Your task to perform on an android device: Go to internet settings Image 0: 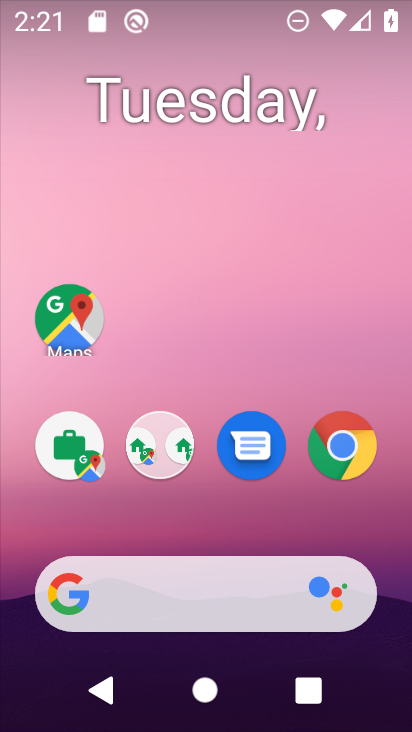
Step 0: drag from (266, 474) to (261, 136)
Your task to perform on an android device: Go to internet settings Image 1: 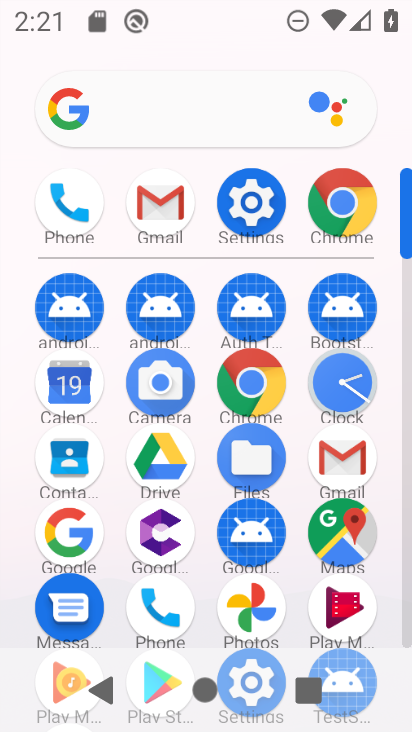
Step 1: click (253, 222)
Your task to perform on an android device: Go to internet settings Image 2: 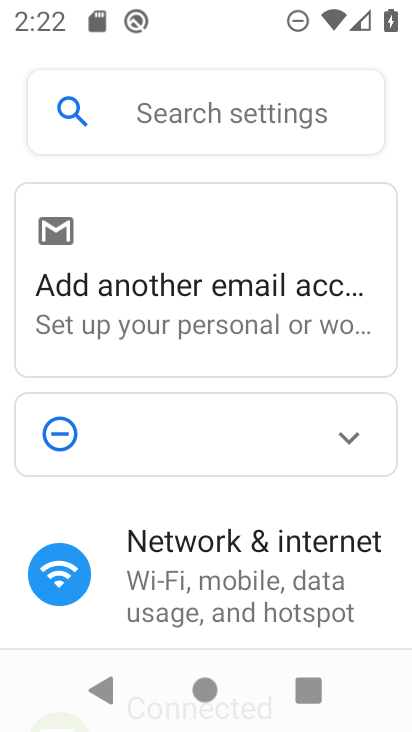
Step 2: click (163, 588)
Your task to perform on an android device: Go to internet settings Image 3: 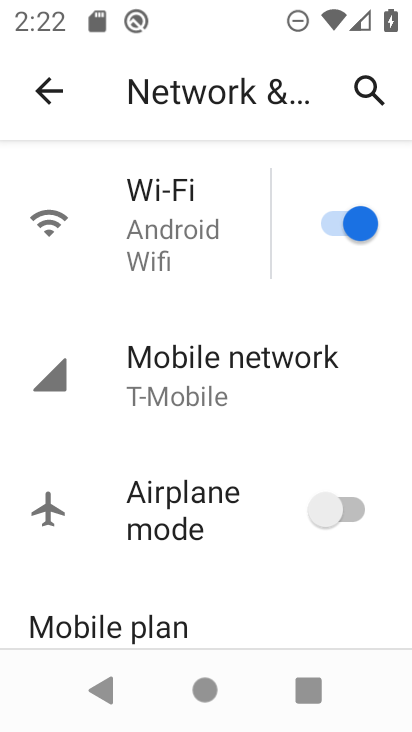
Step 3: drag from (209, 451) to (254, 278)
Your task to perform on an android device: Go to internet settings Image 4: 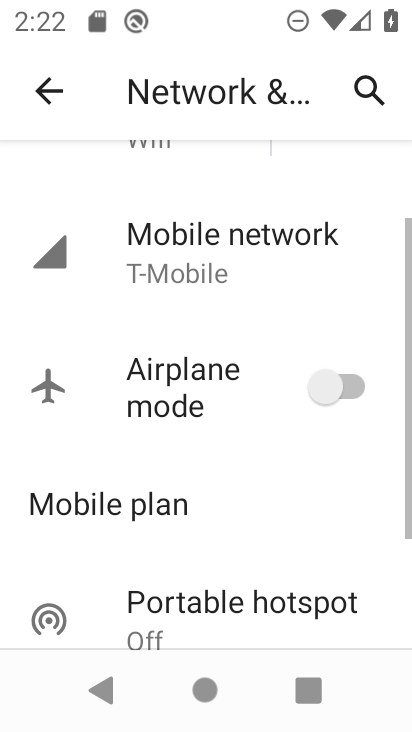
Step 4: drag from (234, 510) to (291, 243)
Your task to perform on an android device: Go to internet settings Image 5: 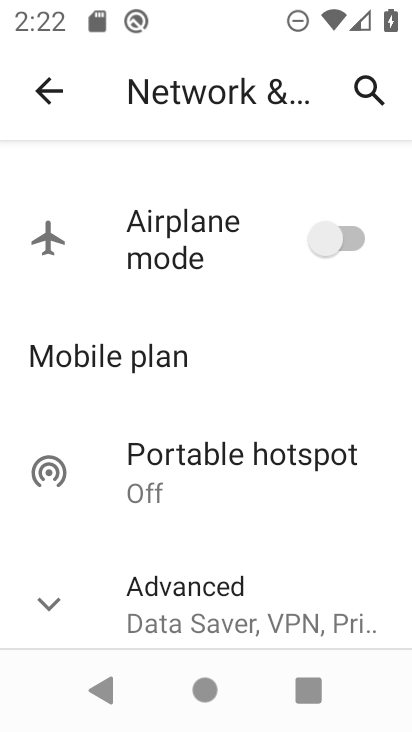
Step 5: drag from (243, 466) to (303, 221)
Your task to perform on an android device: Go to internet settings Image 6: 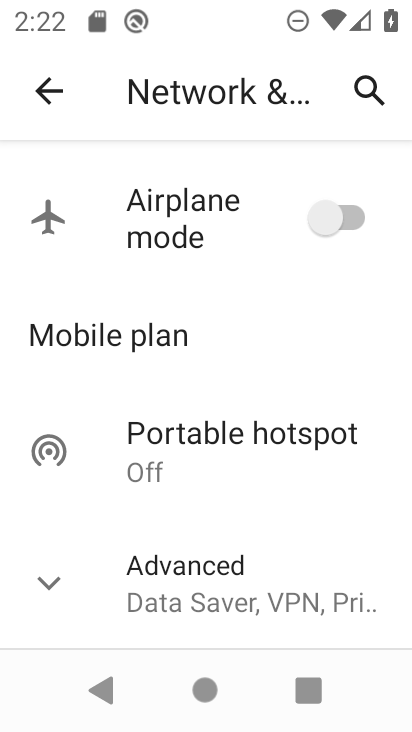
Step 6: drag from (275, 423) to (285, 615)
Your task to perform on an android device: Go to internet settings Image 7: 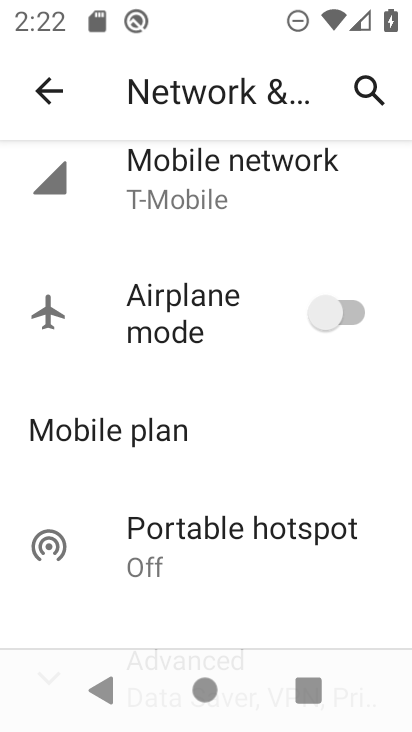
Step 7: click (266, 202)
Your task to perform on an android device: Go to internet settings Image 8: 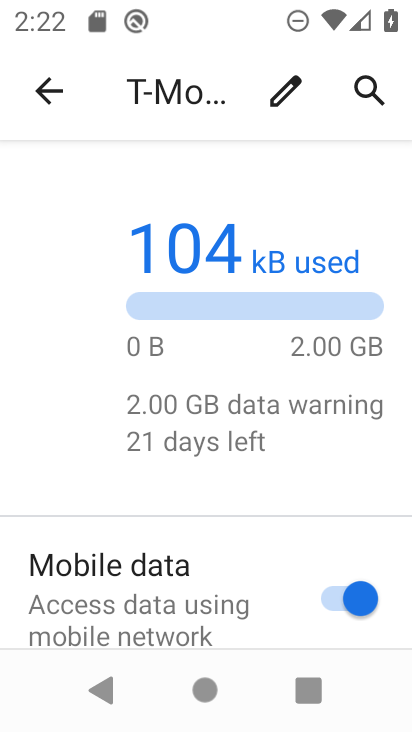
Step 8: task complete